Your task to perform on an android device: Search for hotels in Buenos aires Image 0: 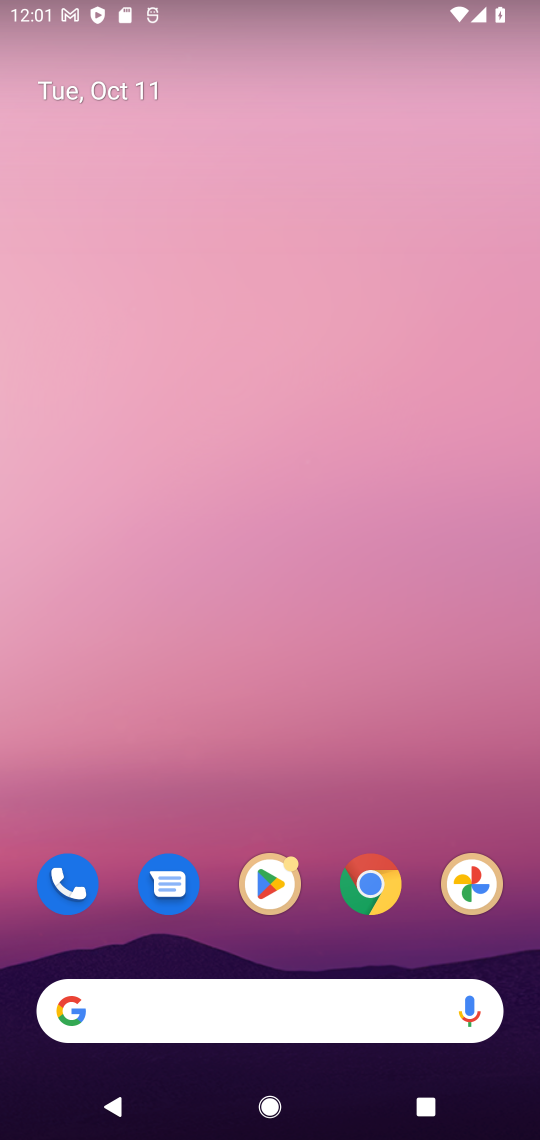
Step 0: drag from (330, 971) to (310, 177)
Your task to perform on an android device: Search for hotels in Buenos aires Image 1: 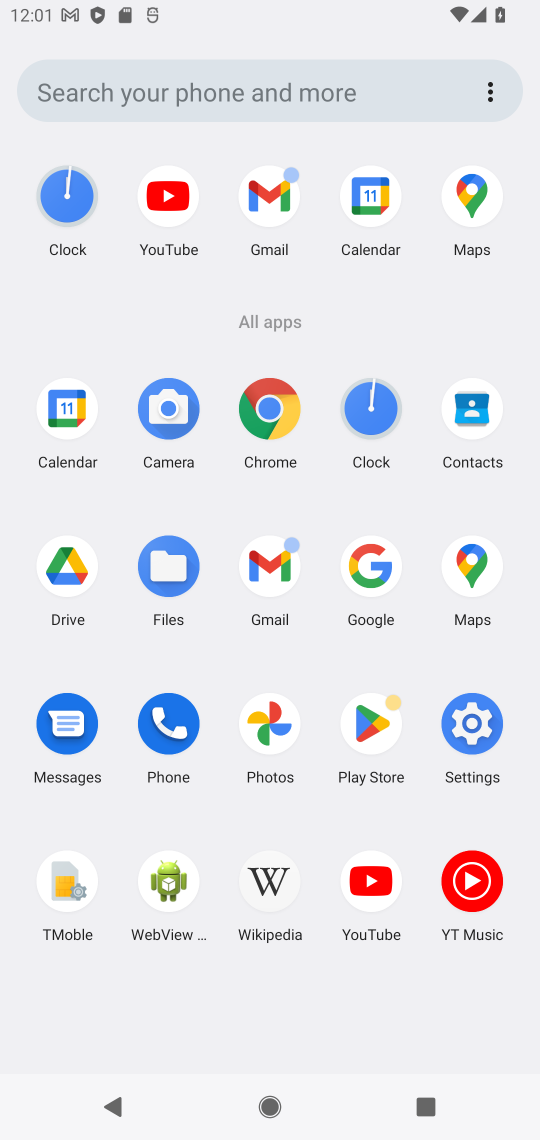
Step 1: click (384, 577)
Your task to perform on an android device: Search for hotels in Buenos aires Image 2: 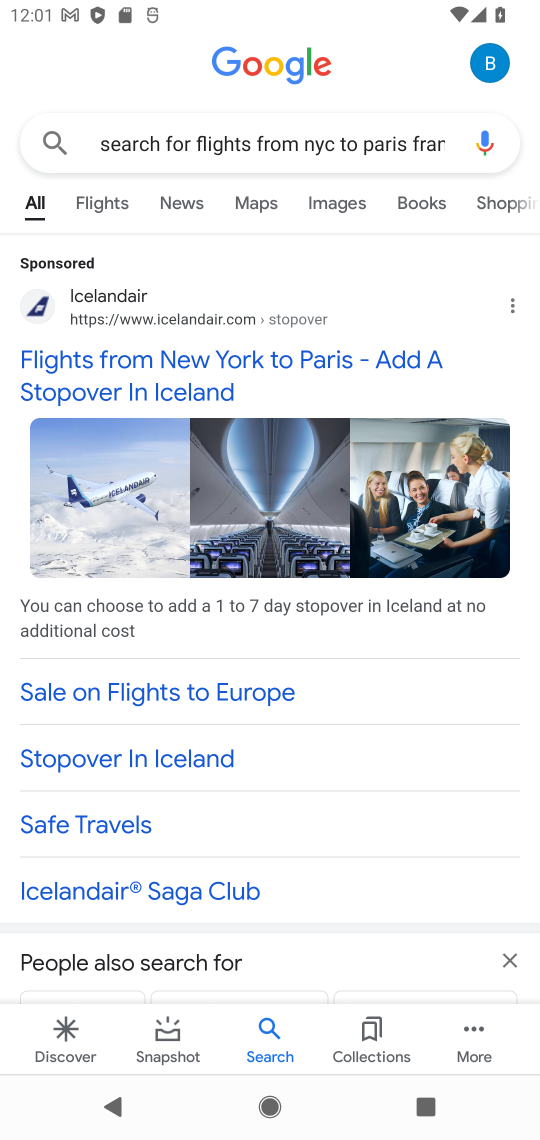
Step 2: click (230, 134)
Your task to perform on an android device: Search for hotels in Buenos aires Image 3: 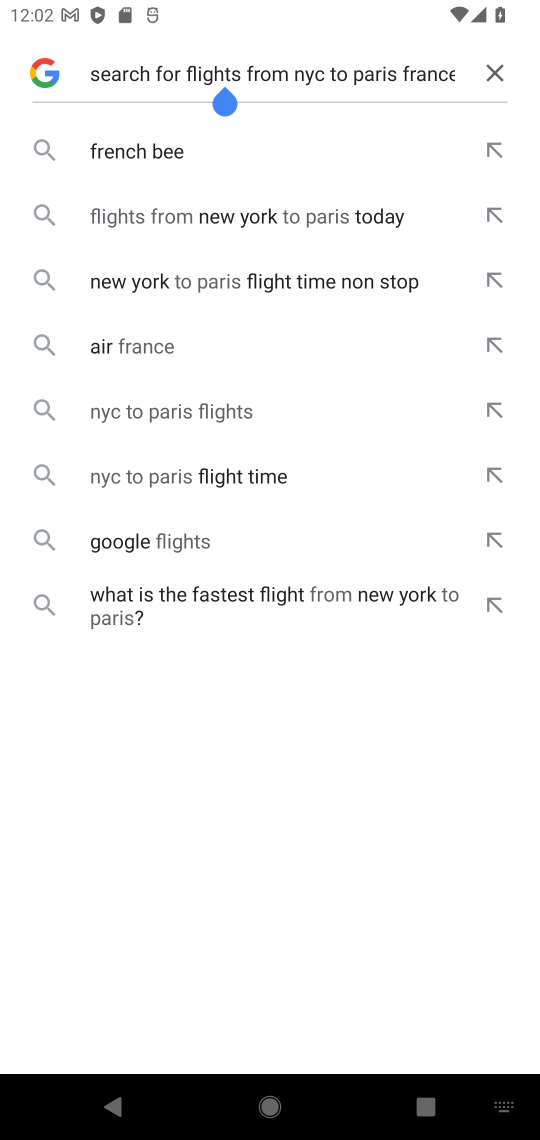
Step 3: click (494, 65)
Your task to perform on an android device: Search for hotels in Buenos aires Image 4: 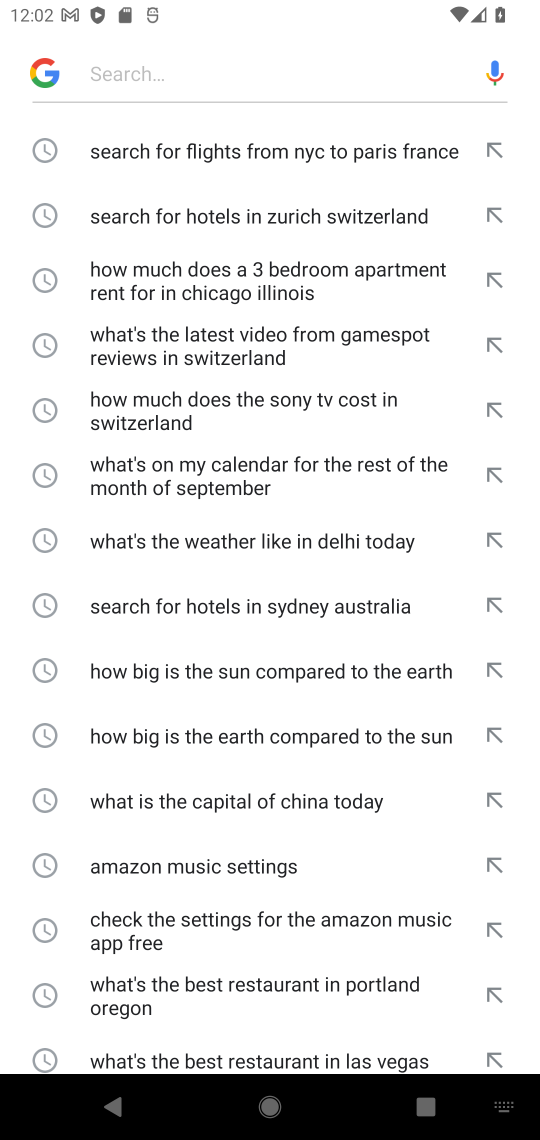
Step 4: type "Search for hotels in Buenos aires"
Your task to perform on an android device: Search for hotels in Buenos aires Image 5: 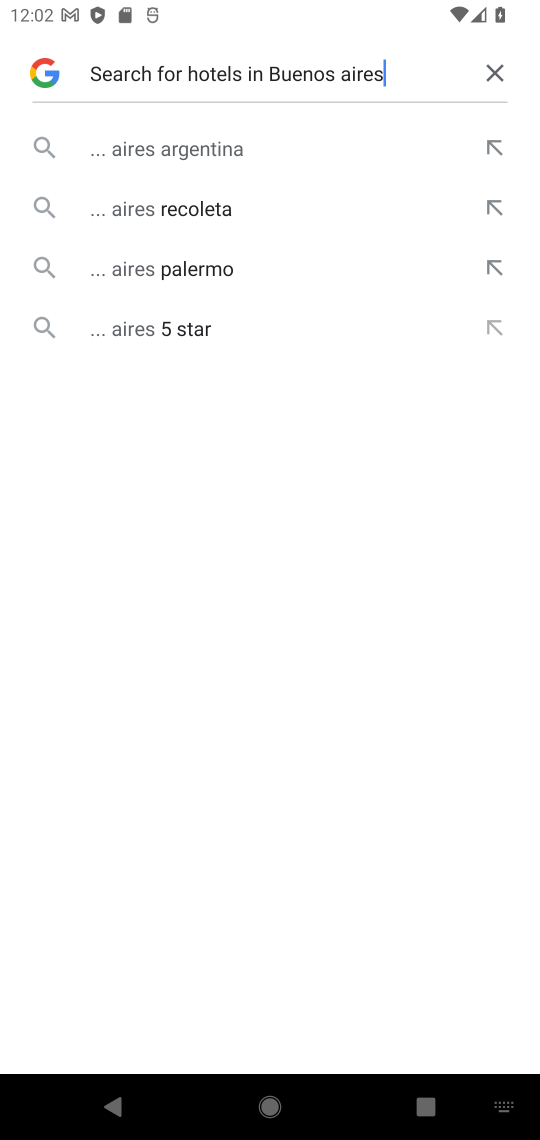
Step 5: click (188, 145)
Your task to perform on an android device: Search for hotels in Buenos aires Image 6: 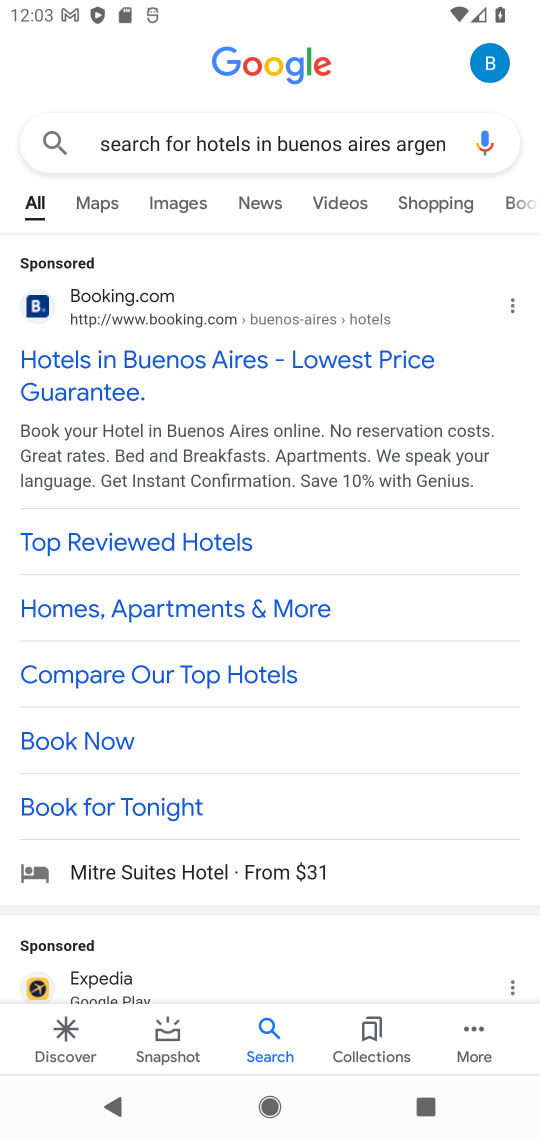
Step 6: click (263, 353)
Your task to perform on an android device: Search for hotels in Buenos aires Image 7: 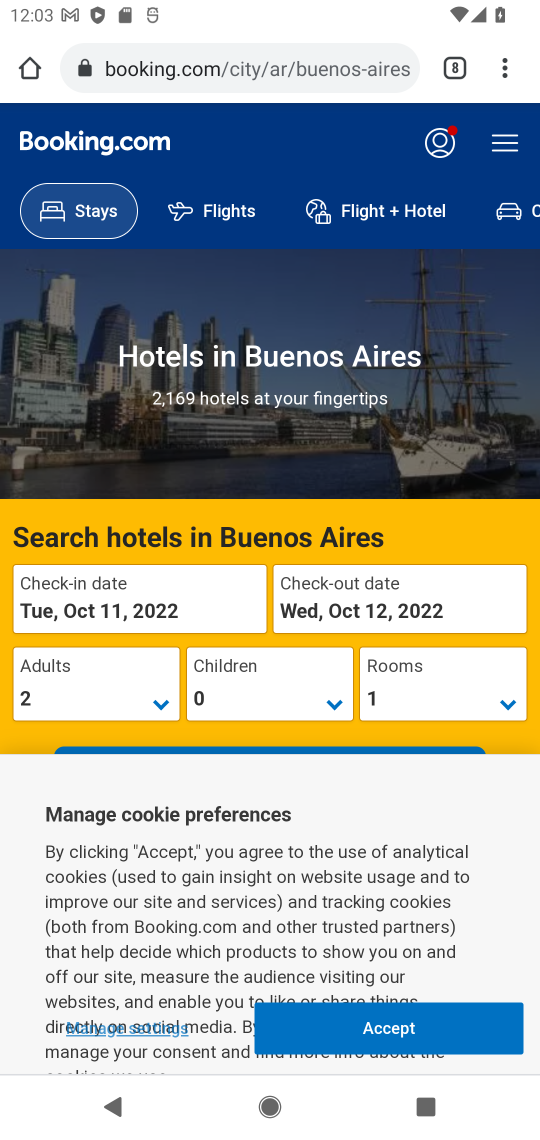
Step 7: task complete